Your task to perform on an android device: toggle wifi Image 0: 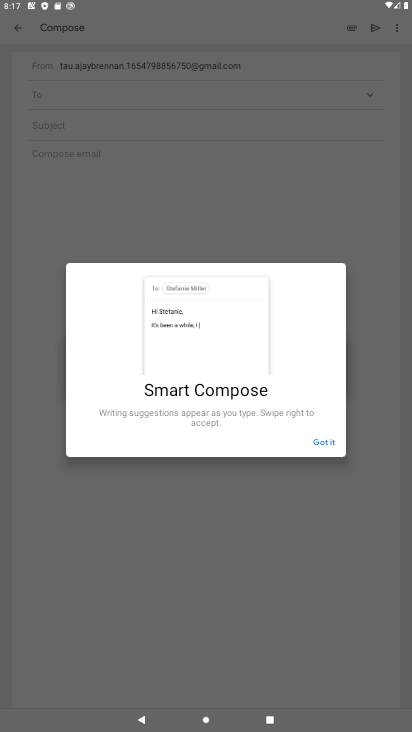
Step 0: press home button
Your task to perform on an android device: toggle wifi Image 1: 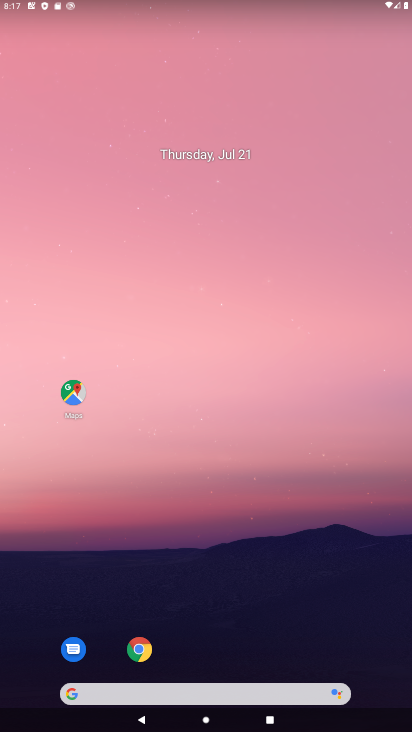
Step 1: drag from (239, 617) to (243, 121)
Your task to perform on an android device: toggle wifi Image 2: 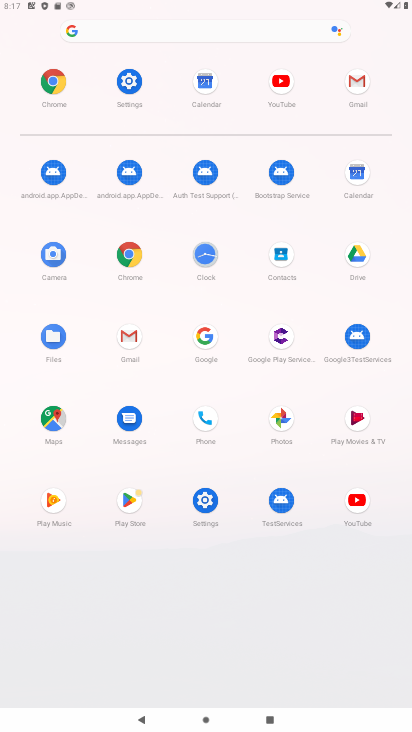
Step 2: click (118, 71)
Your task to perform on an android device: toggle wifi Image 3: 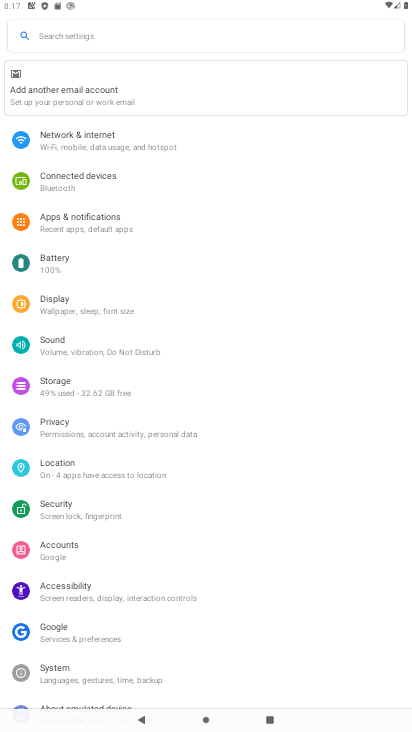
Step 3: click (110, 140)
Your task to perform on an android device: toggle wifi Image 4: 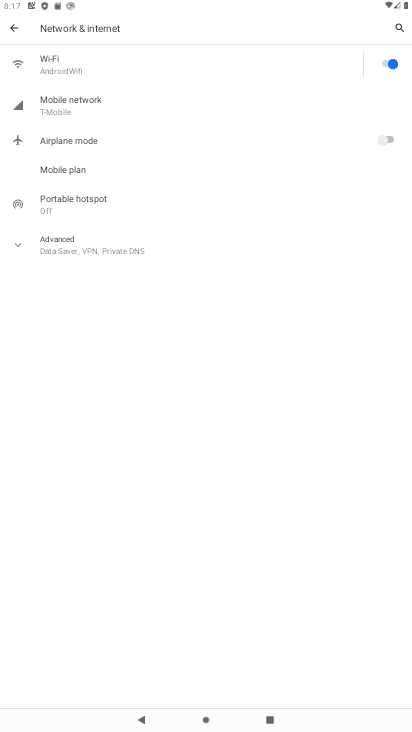
Step 4: click (373, 62)
Your task to perform on an android device: toggle wifi Image 5: 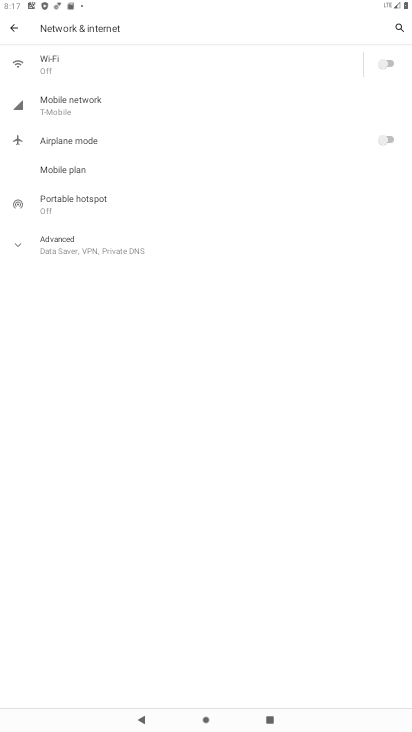
Step 5: task complete